Your task to perform on an android device: turn smart compose on in the gmail app Image 0: 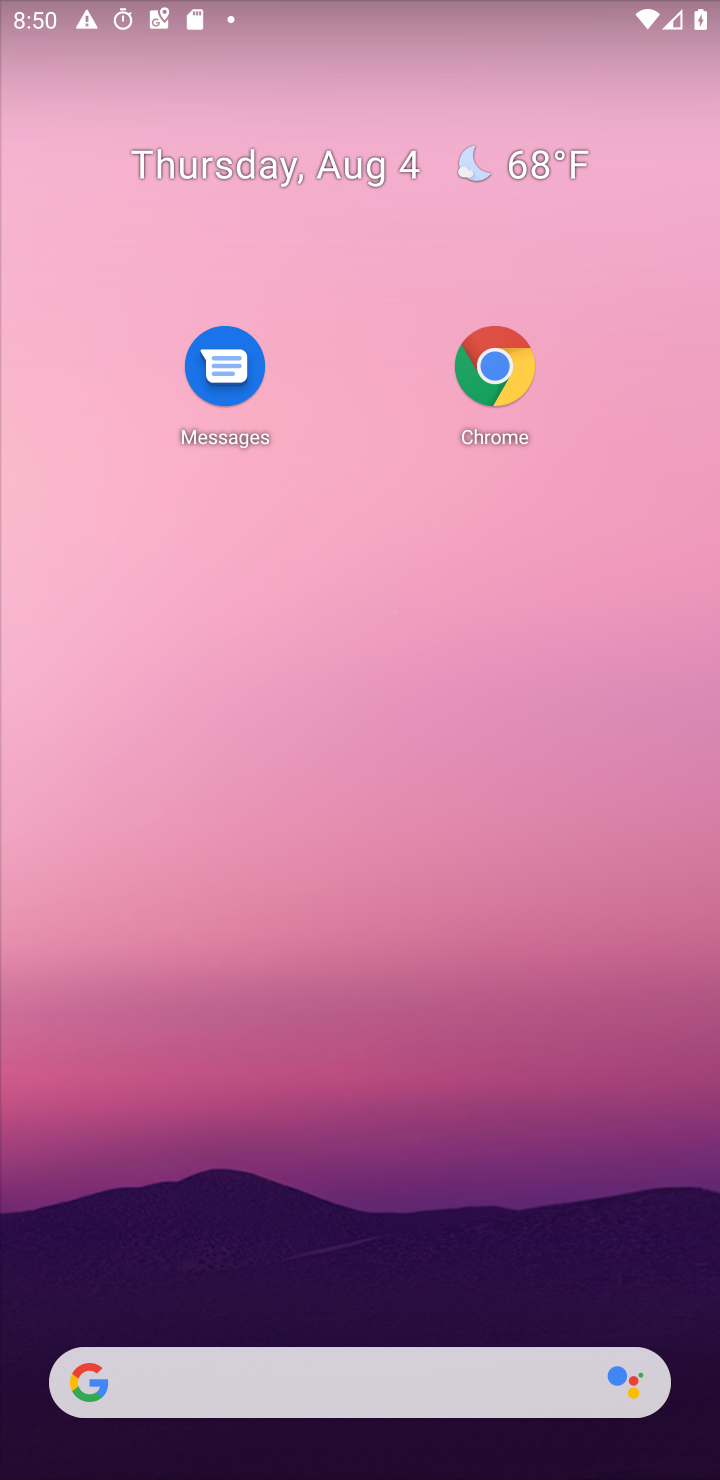
Step 0: press home button
Your task to perform on an android device: turn smart compose on in the gmail app Image 1: 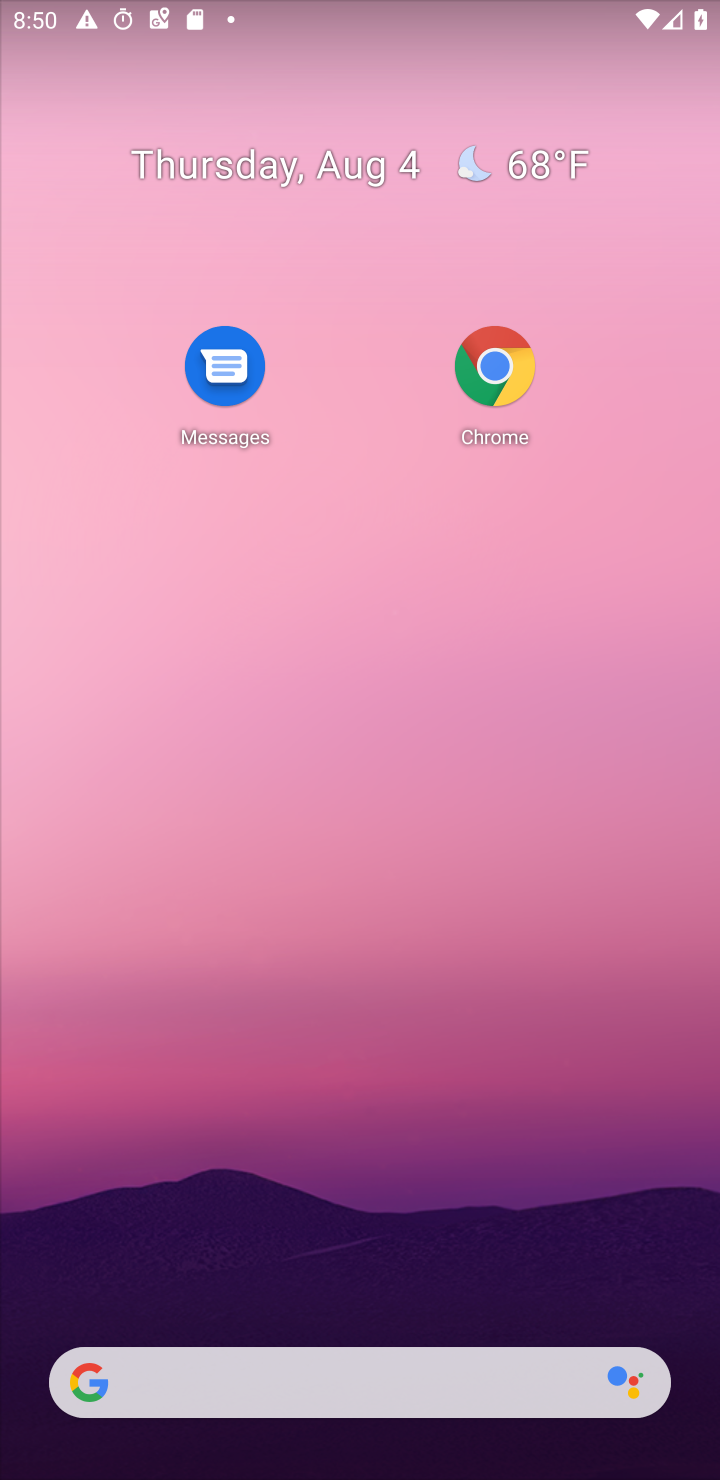
Step 1: drag from (424, 1387) to (421, 467)
Your task to perform on an android device: turn smart compose on in the gmail app Image 2: 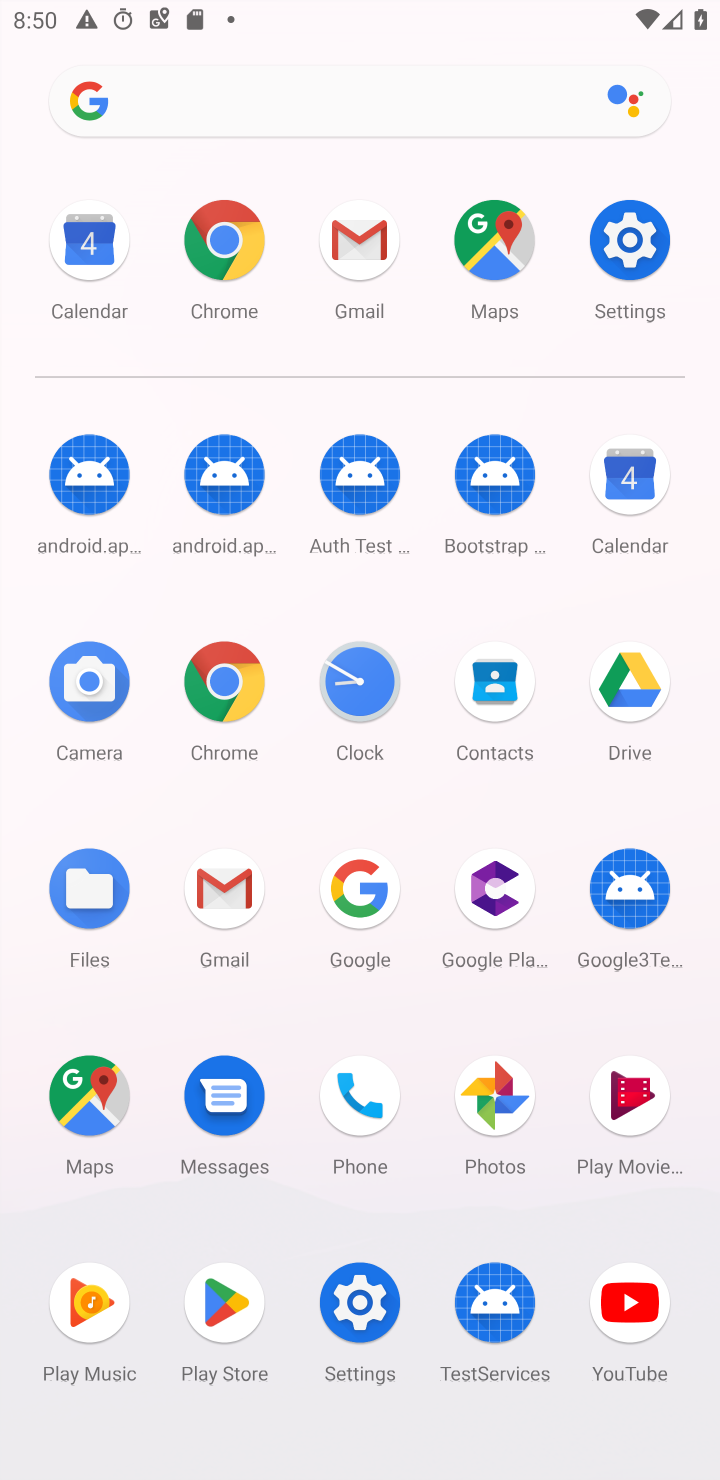
Step 2: click (350, 260)
Your task to perform on an android device: turn smart compose on in the gmail app Image 3: 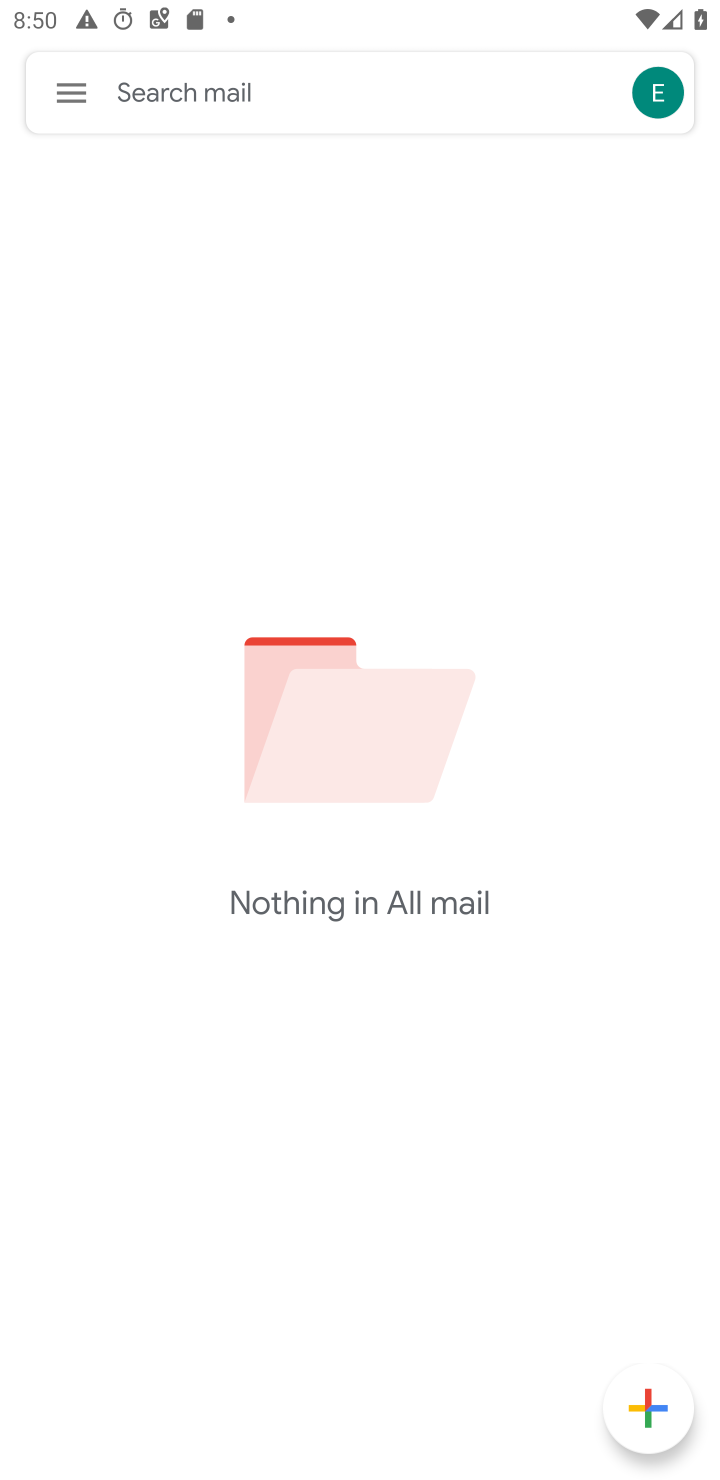
Step 3: click (64, 108)
Your task to perform on an android device: turn smart compose on in the gmail app Image 4: 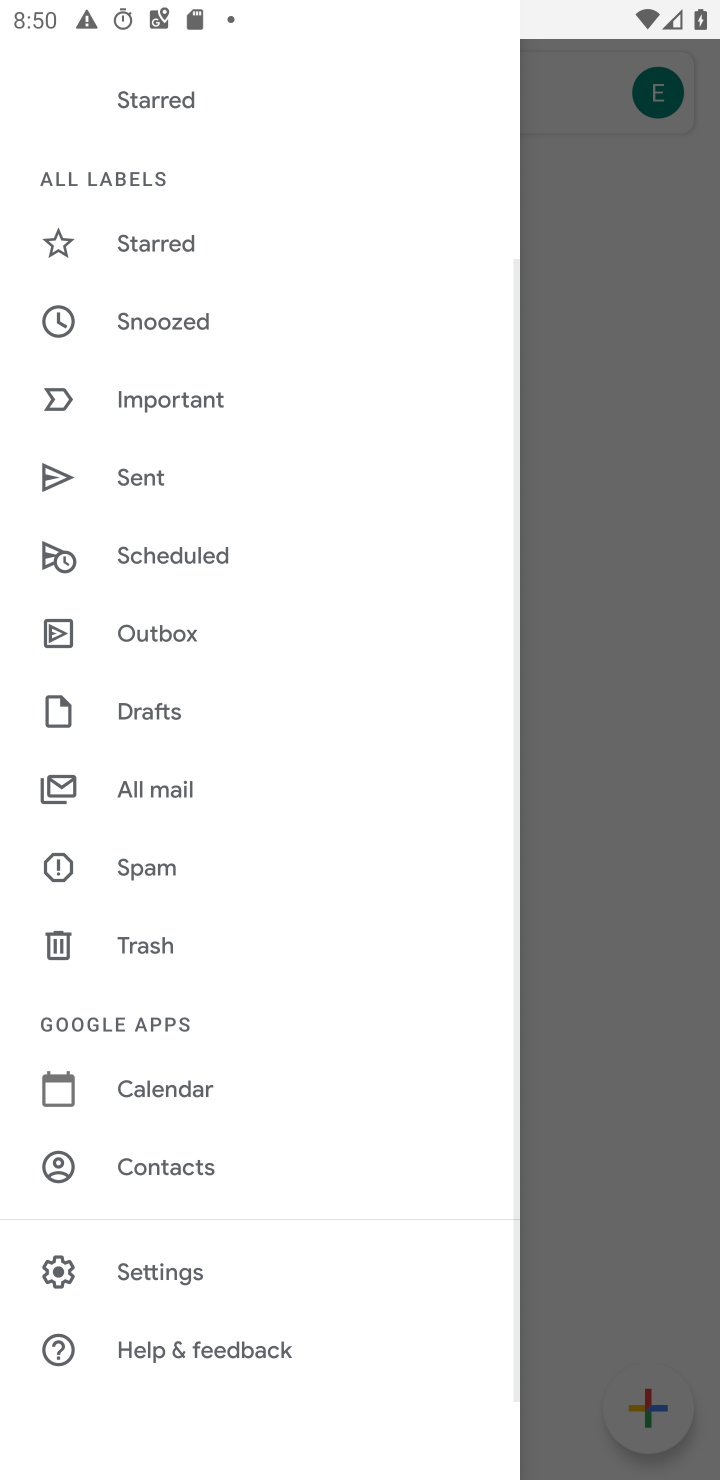
Step 4: click (209, 1259)
Your task to perform on an android device: turn smart compose on in the gmail app Image 5: 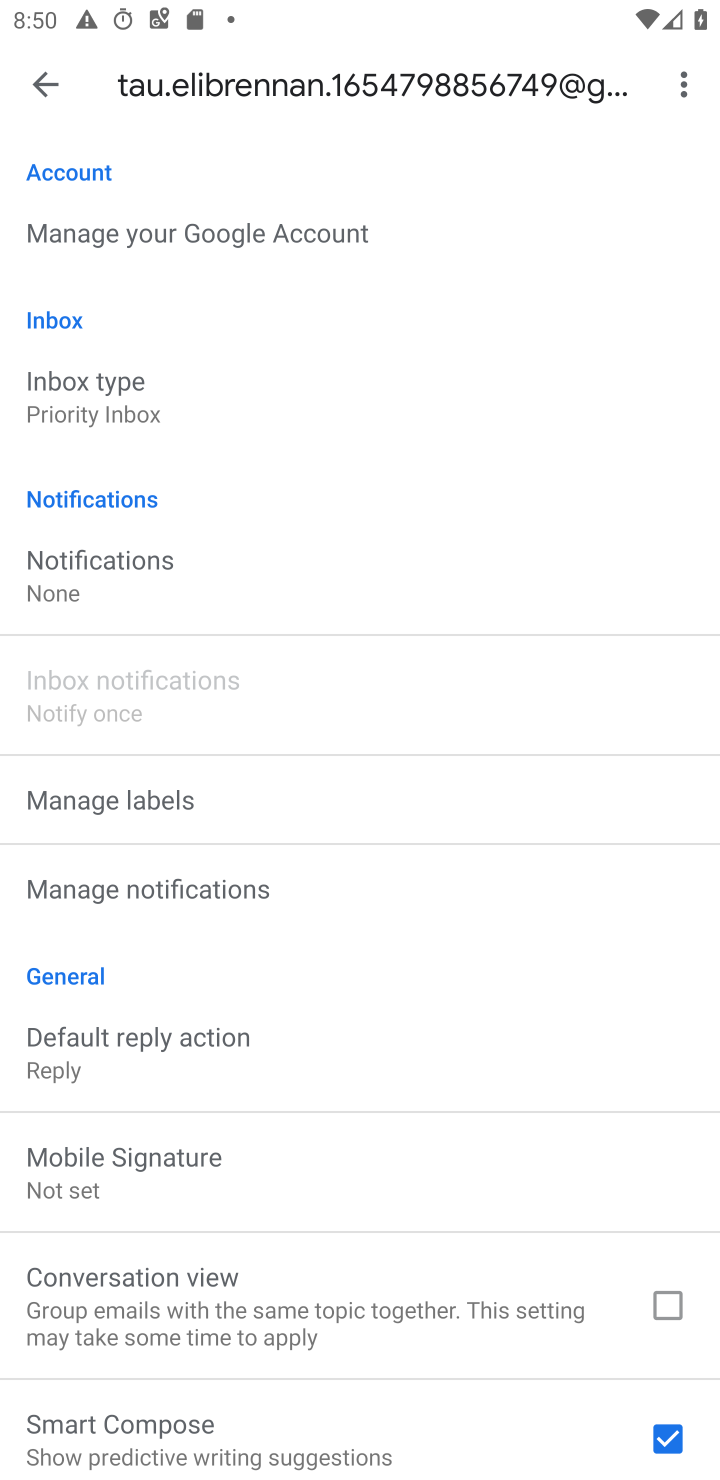
Step 5: drag from (433, 1124) to (370, 877)
Your task to perform on an android device: turn smart compose on in the gmail app Image 6: 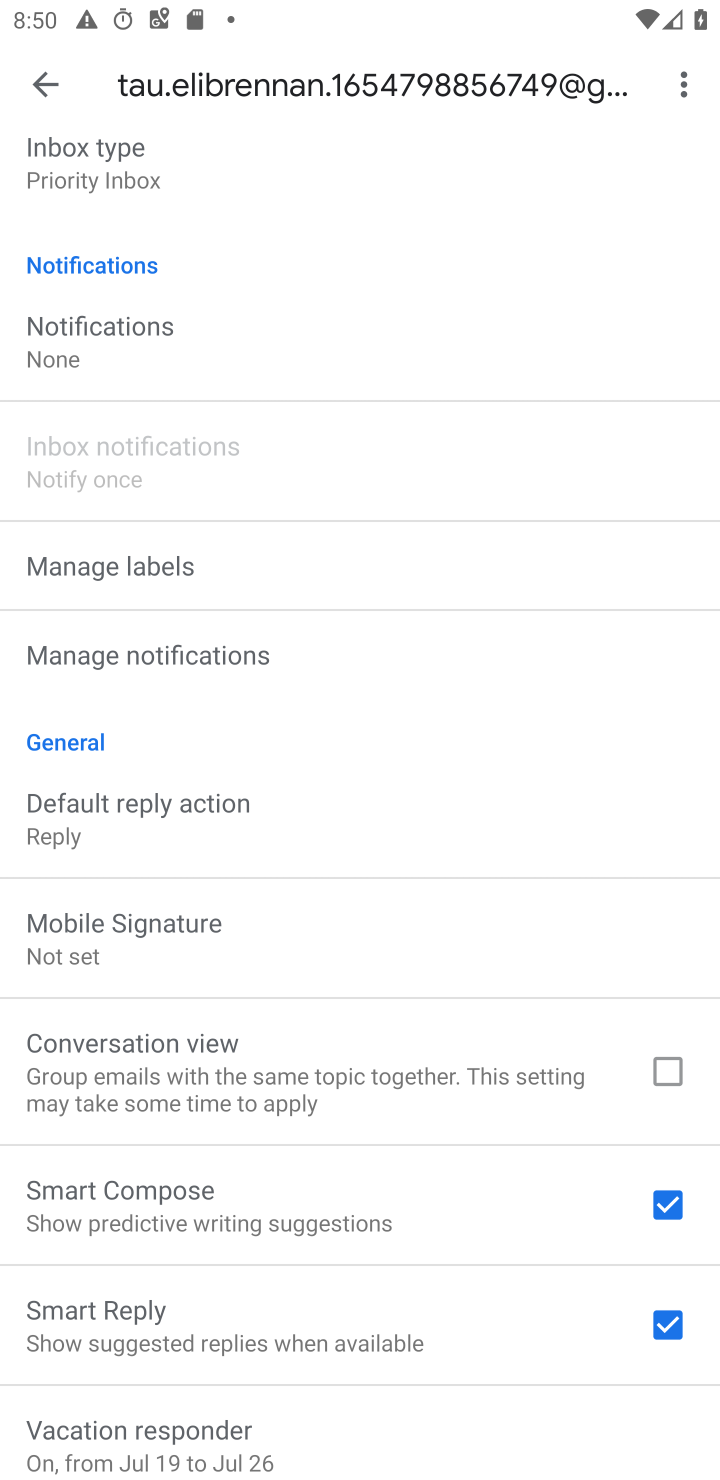
Step 6: click (658, 1215)
Your task to perform on an android device: turn smart compose on in the gmail app Image 7: 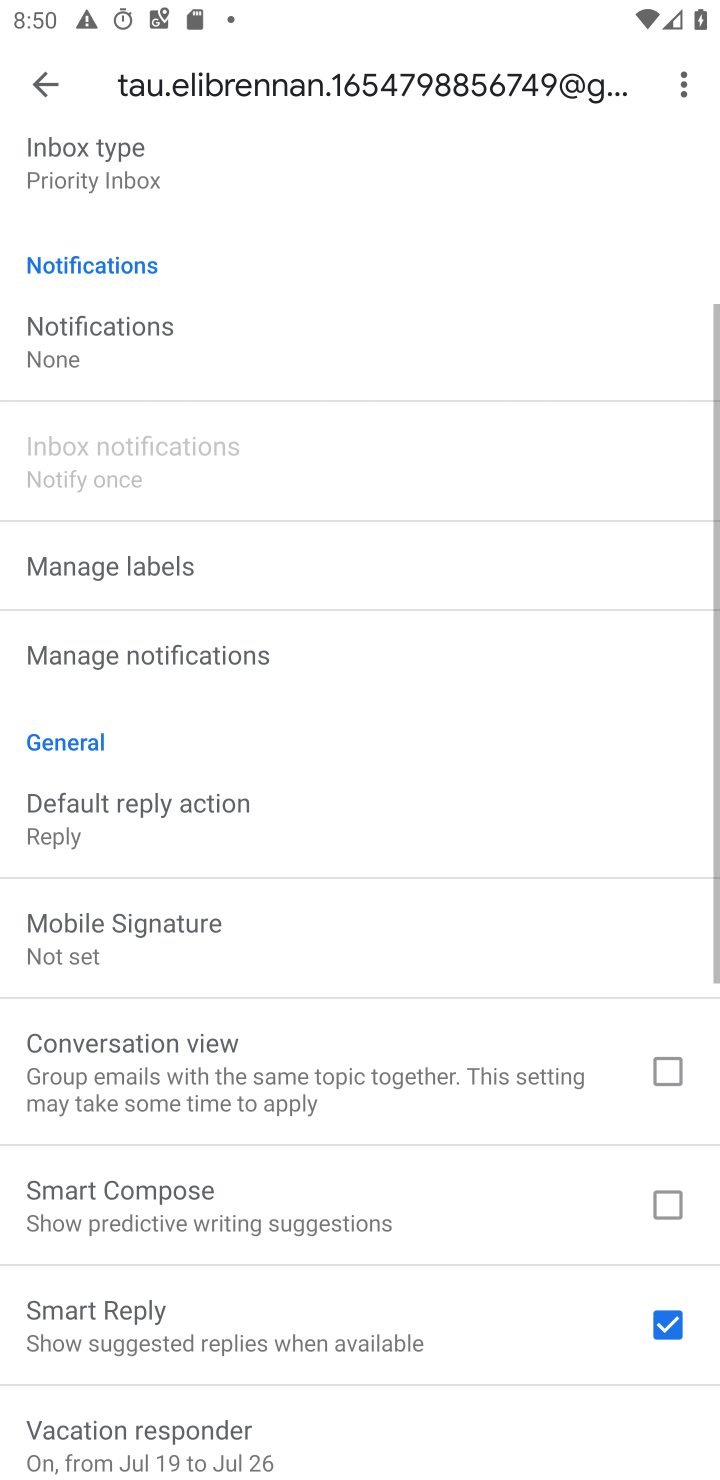
Step 7: click (660, 1225)
Your task to perform on an android device: turn smart compose on in the gmail app Image 8: 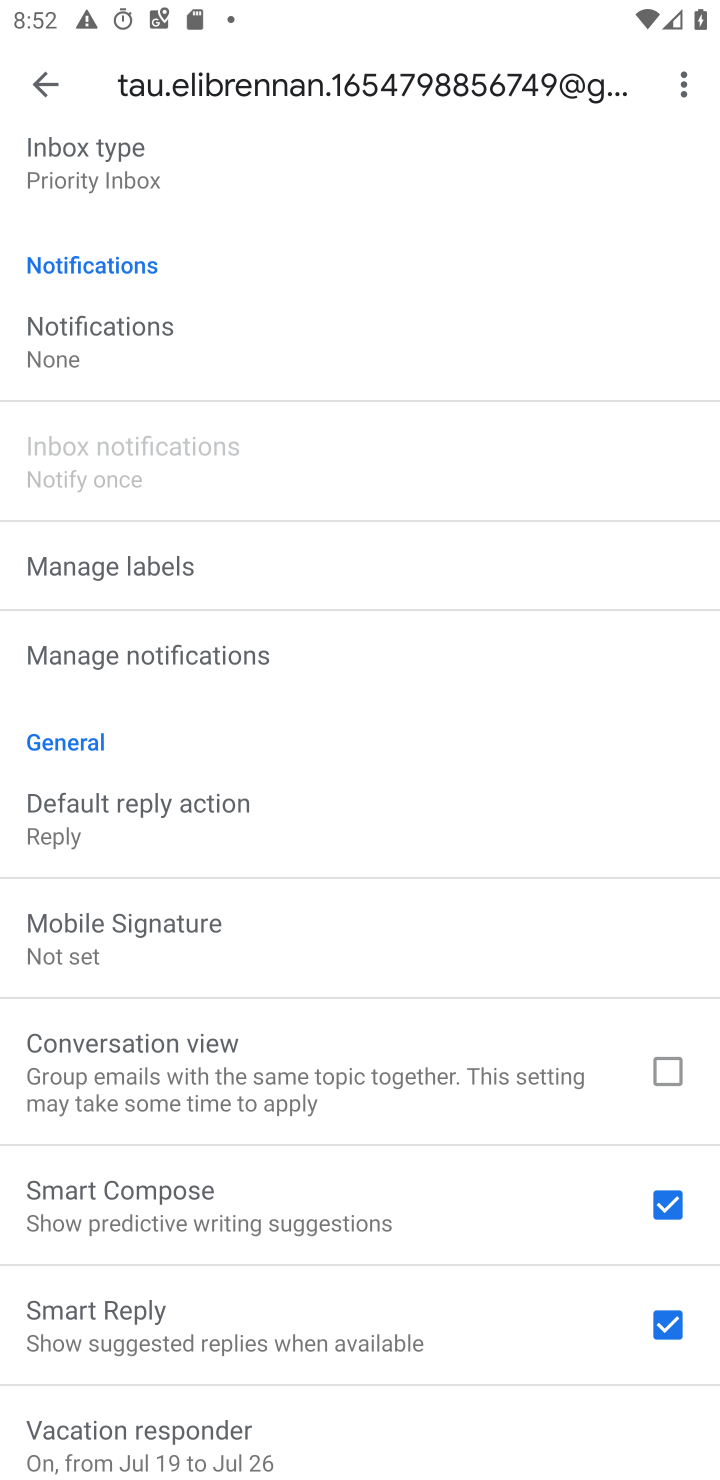
Step 8: task complete